Your task to perform on an android device: move an email to a new category in the gmail app Image 0: 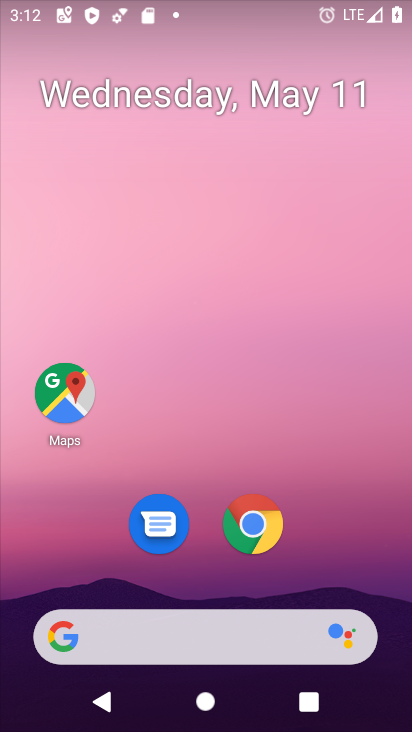
Step 0: drag from (349, 523) to (327, 0)
Your task to perform on an android device: move an email to a new category in the gmail app Image 1: 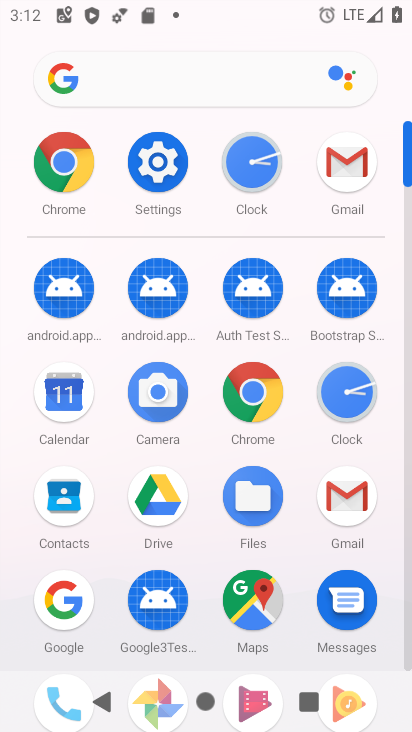
Step 1: click (348, 151)
Your task to perform on an android device: move an email to a new category in the gmail app Image 2: 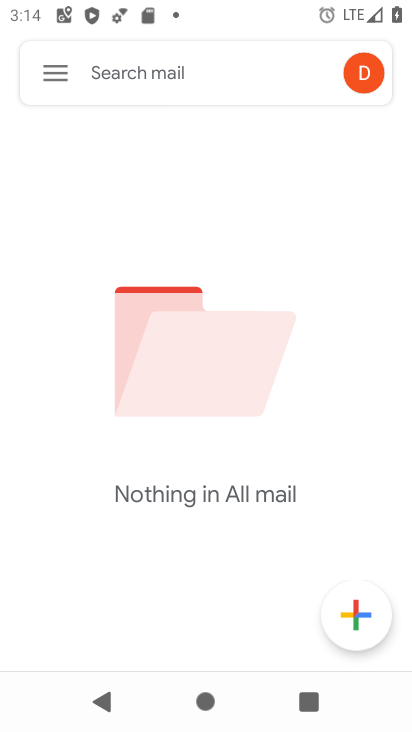
Step 2: task complete